Your task to perform on an android device: install app "TextNow: Call + Text Unlimited" Image 0: 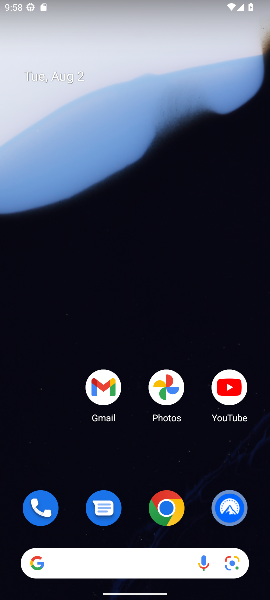
Step 0: drag from (136, 438) to (172, 31)
Your task to perform on an android device: install app "TextNow: Call + Text Unlimited" Image 1: 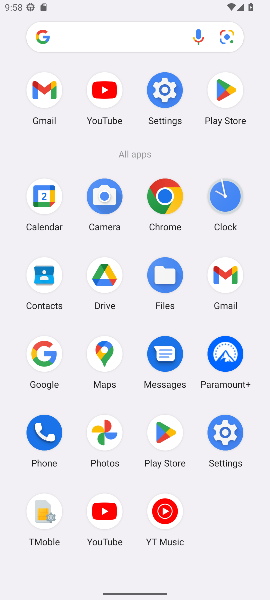
Step 1: click (226, 104)
Your task to perform on an android device: install app "TextNow: Call + Text Unlimited" Image 2: 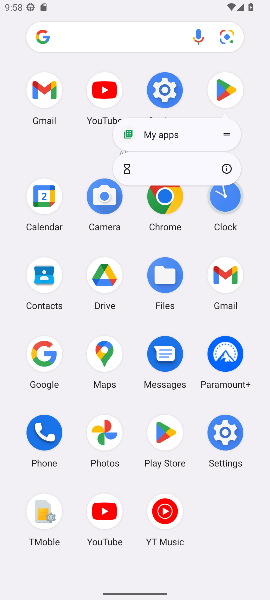
Step 2: click (226, 88)
Your task to perform on an android device: install app "TextNow: Call + Text Unlimited" Image 3: 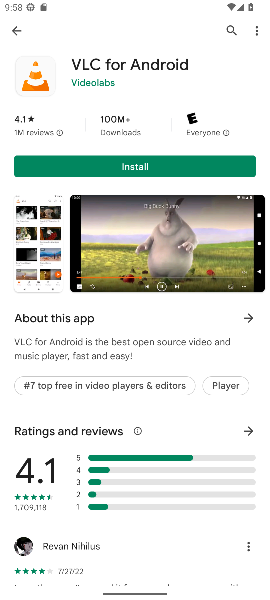
Step 3: click (225, 29)
Your task to perform on an android device: install app "TextNow: Call + Text Unlimited" Image 4: 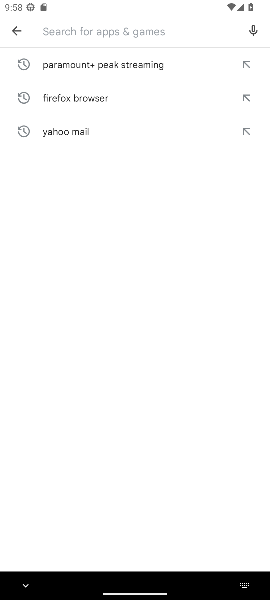
Step 4: type "TextNow: Call + Text Unlimited"
Your task to perform on an android device: install app "TextNow: Call + Text Unlimited" Image 5: 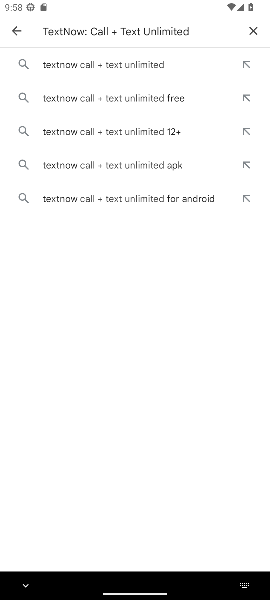
Step 5: click (100, 69)
Your task to perform on an android device: install app "TextNow: Call + Text Unlimited" Image 6: 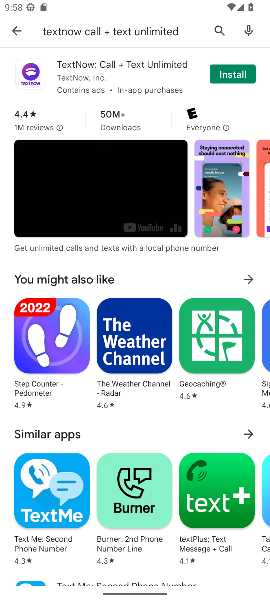
Step 6: click (233, 69)
Your task to perform on an android device: install app "TextNow: Call + Text Unlimited" Image 7: 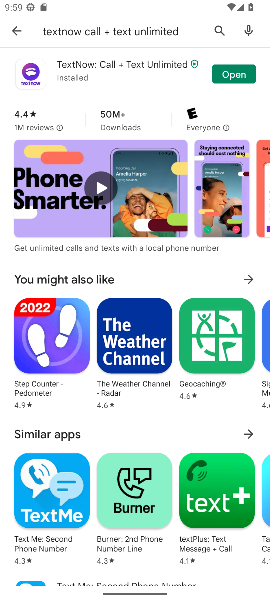
Step 7: task complete